Your task to perform on an android device: Open Google Chrome and click the shortcut for Amazon.com Image 0: 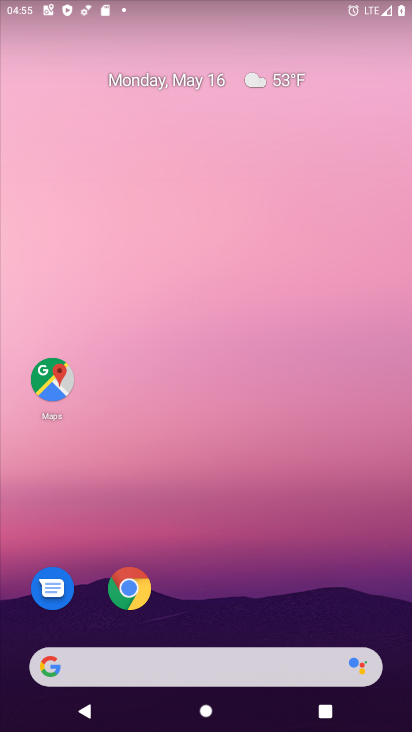
Step 0: drag from (263, 542) to (261, 11)
Your task to perform on an android device: Open Google Chrome and click the shortcut for Amazon.com Image 1: 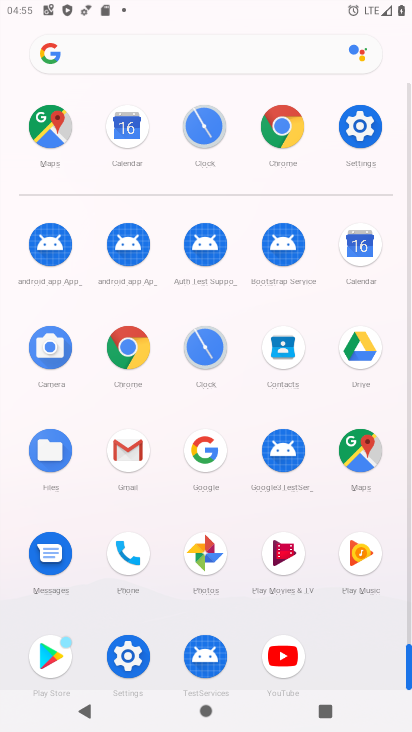
Step 1: drag from (7, 579) to (6, 279)
Your task to perform on an android device: Open Google Chrome and click the shortcut for Amazon.com Image 2: 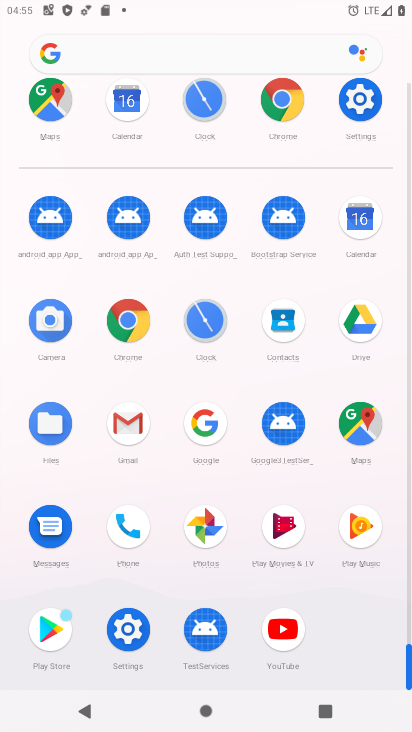
Step 2: click (128, 315)
Your task to perform on an android device: Open Google Chrome and click the shortcut for Amazon.com Image 3: 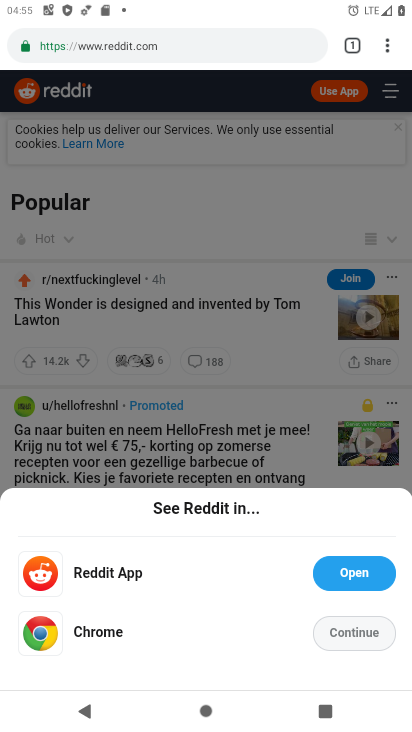
Step 3: click (199, 31)
Your task to perform on an android device: Open Google Chrome and click the shortcut for Amazon.com Image 4: 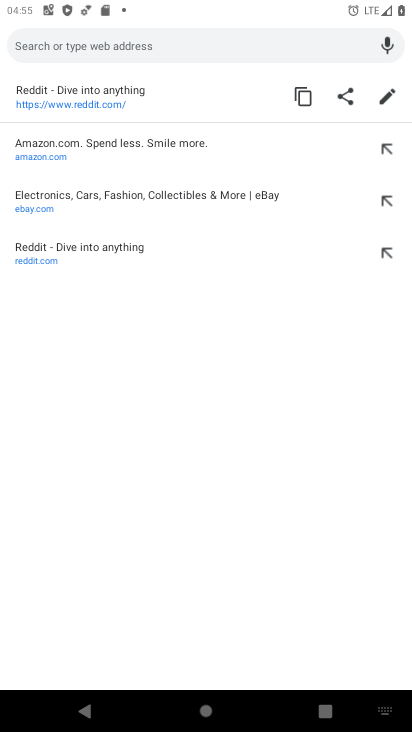
Step 4: click (133, 155)
Your task to perform on an android device: Open Google Chrome and click the shortcut for Amazon.com Image 5: 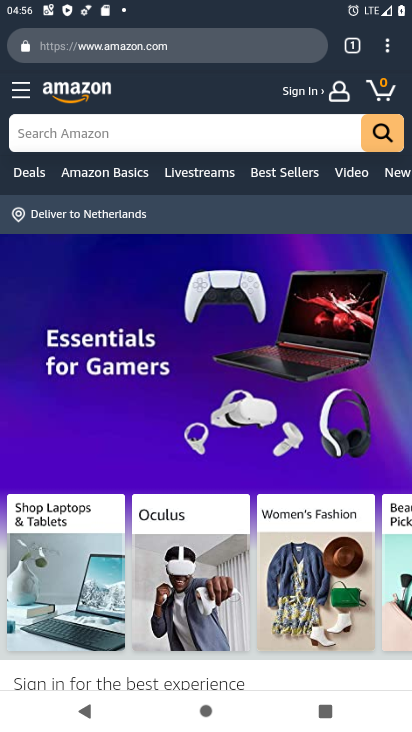
Step 5: task complete